Your task to perform on an android device: Is it going to rain this weekend? Image 0: 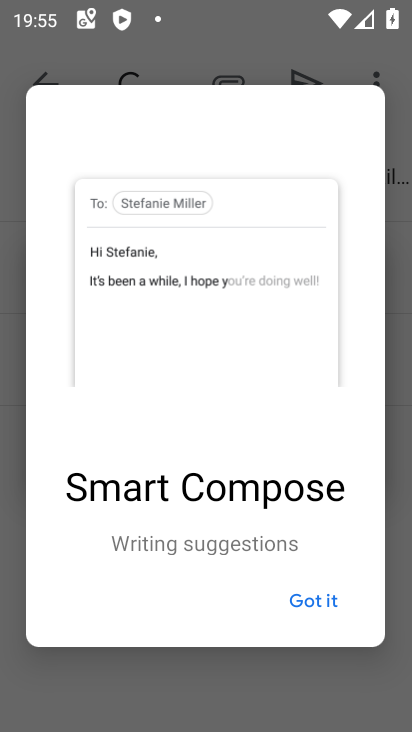
Step 0: press home button
Your task to perform on an android device: Is it going to rain this weekend? Image 1: 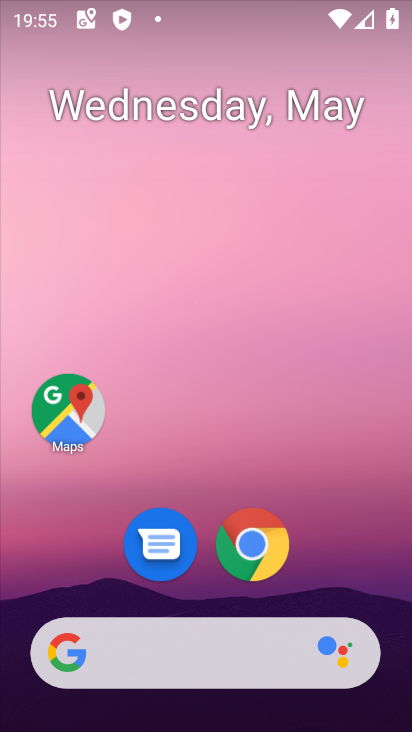
Step 1: click (149, 650)
Your task to perform on an android device: Is it going to rain this weekend? Image 2: 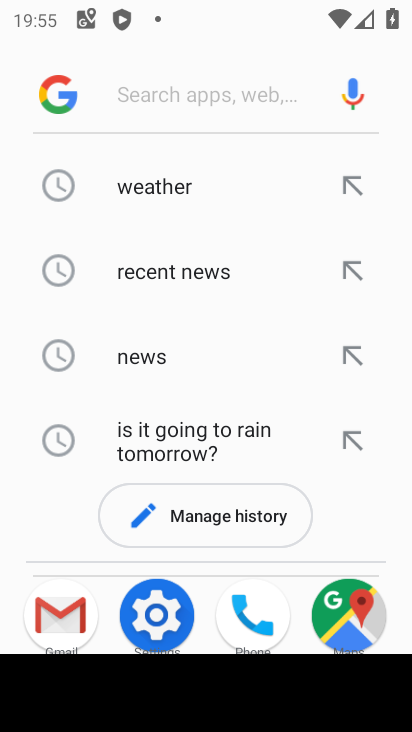
Step 2: click (158, 212)
Your task to perform on an android device: Is it going to rain this weekend? Image 3: 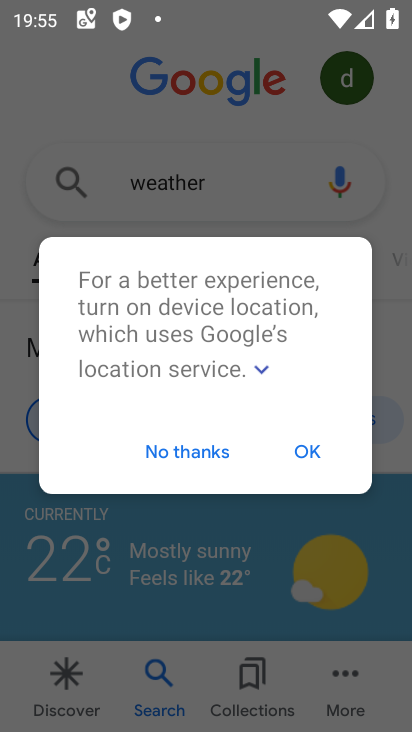
Step 3: click (343, 420)
Your task to perform on an android device: Is it going to rain this weekend? Image 4: 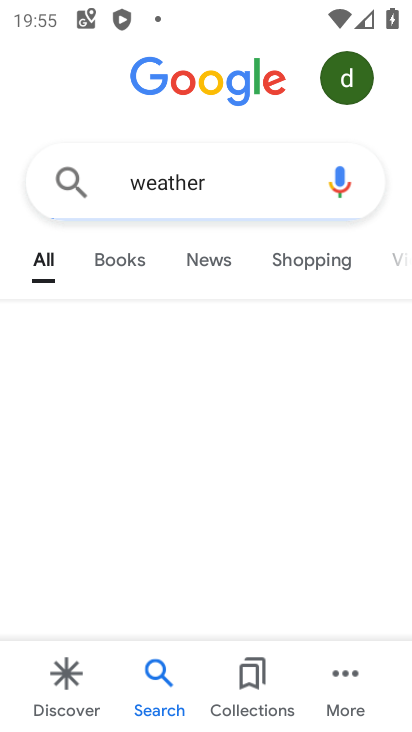
Step 4: click (310, 456)
Your task to perform on an android device: Is it going to rain this weekend? Image 5: 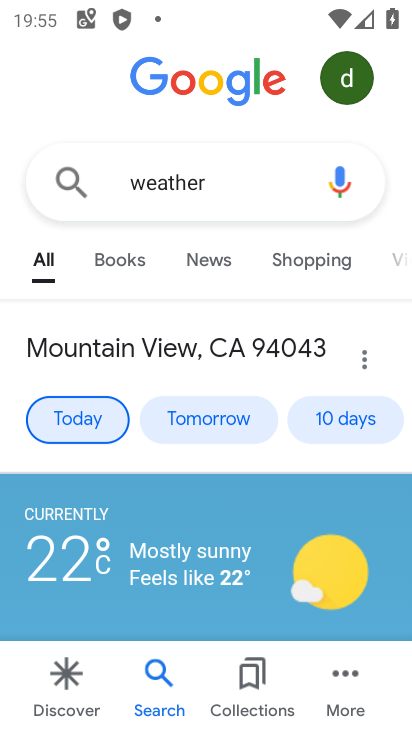
Step 5: click (365, 439)
Your task to perform on an android device: Is it going to rain this weekend? Image 6: 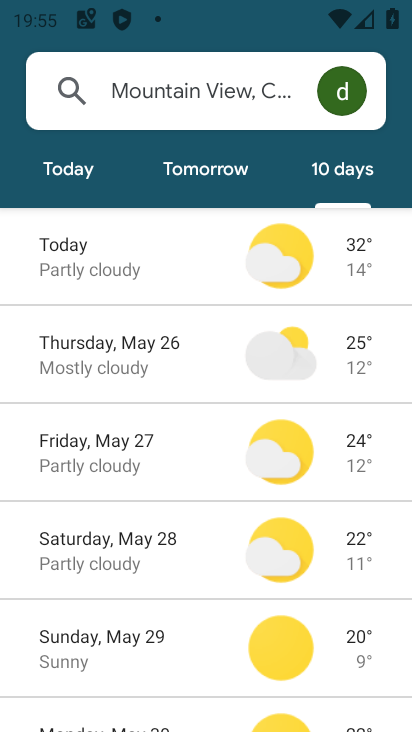
Step 6: task complete